Your task to perform on an android device: What's the weather going to be tomorrow? Image 0: 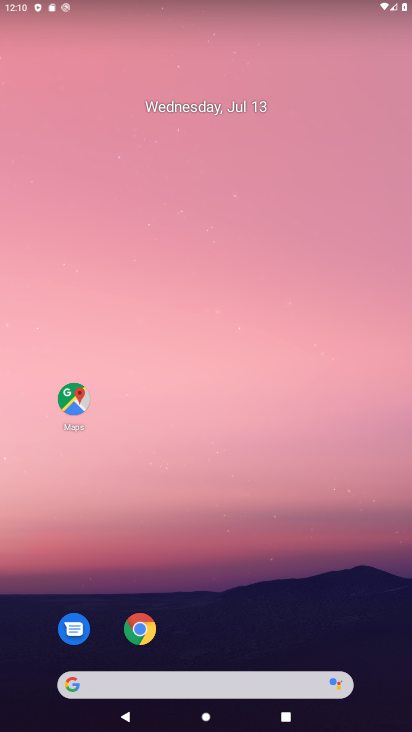
Step 0: drag from (197, 635) to (206, 181)
Your task to perform on an android device: What's the weather going to be tomorrow? Image 1: 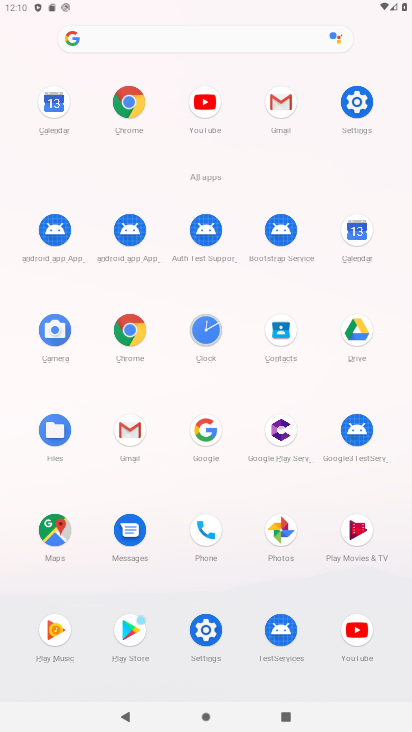
Step 1: click (196, 433)
Your task to perform on an android device: What's the weather going to be tomorrow? Image 2: 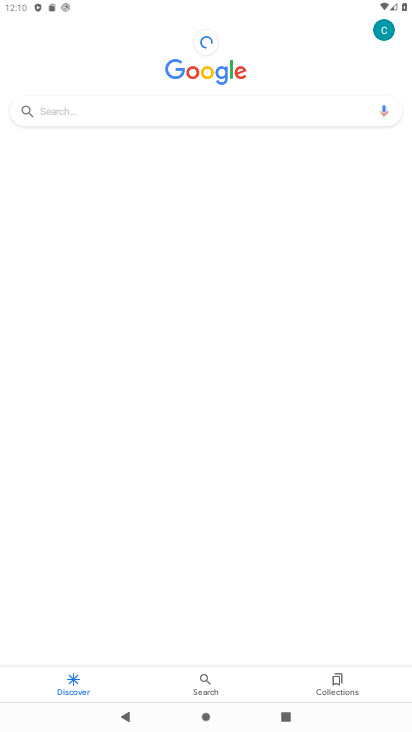
Step 2: click (132, 116)
Your task to perform on an android device: What's the weather going to be tomorrow? Image 3: 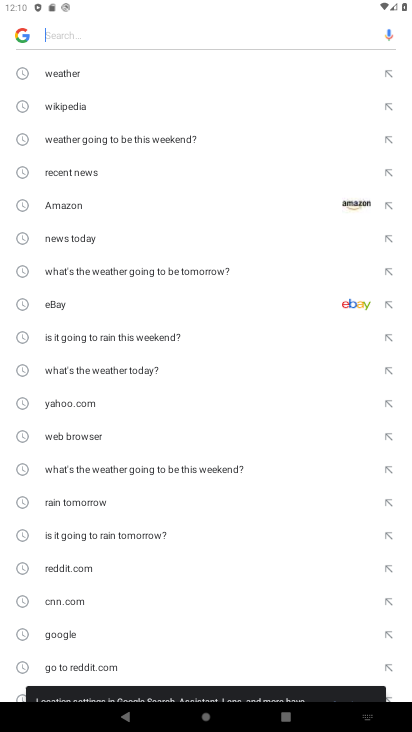
Step 3: click (97, 70)
Your task to perform on an android device: What's the weather going to be tomorrow? Image 4: 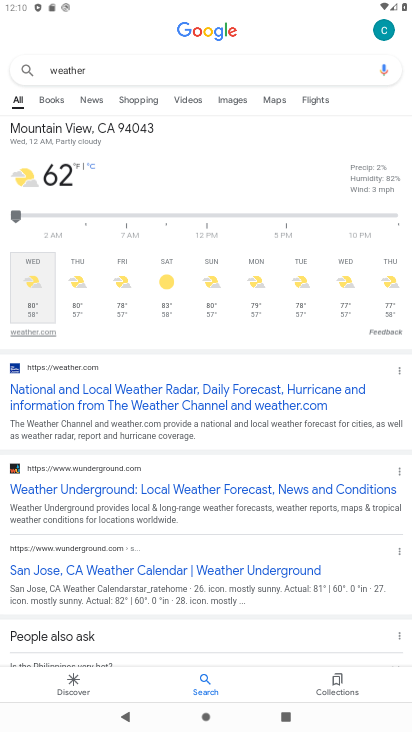
Step 4: task complete